Your task to perform on an android device: Go to privacy settings Image 0: 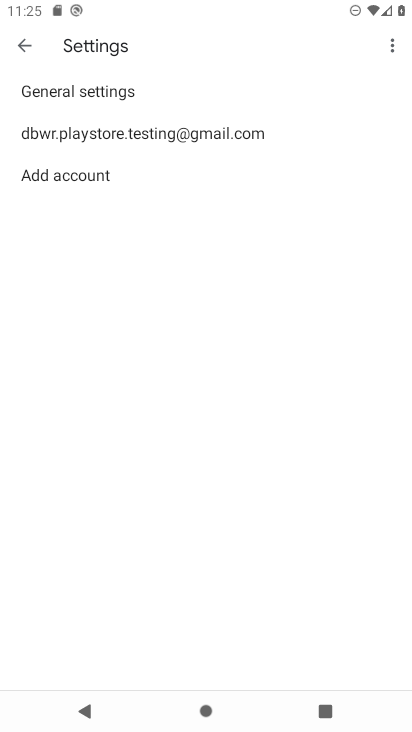
Step 0: click (137, 101)
Your task to perform on an android device: Go to privacy settings Image 1: 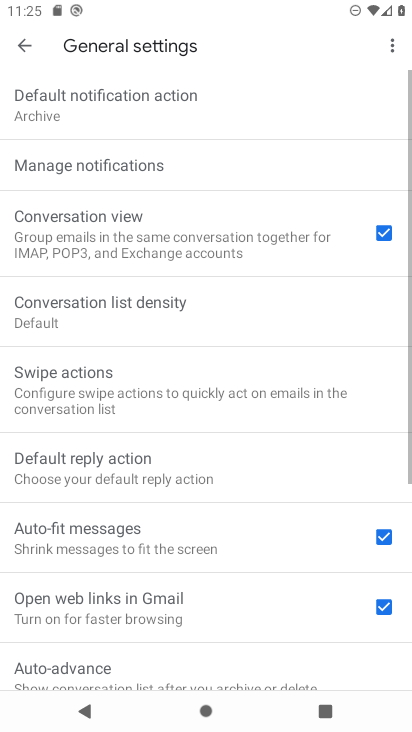
Step 1: press home button
Your task to perform on an android device: Go to privacy settings Image 2: 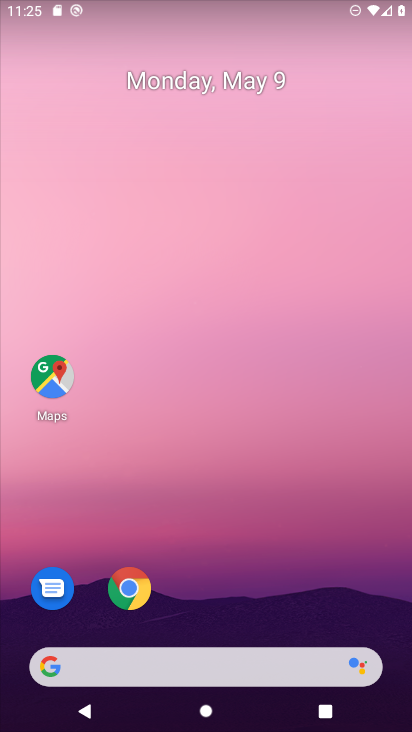
Step 2: drag from (205, 606) to (198, 182)
Your task to perform on an android device: Go to privacy settings Image 3: 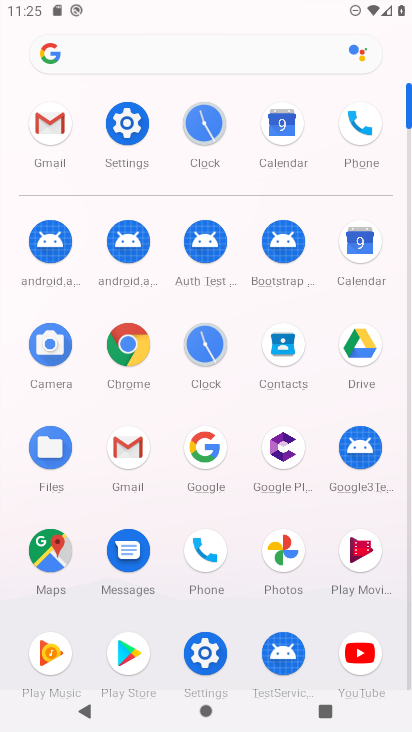
Step 3: click (128, 133)
Your task to perform on an android device: Go to privacy settings Image 4: 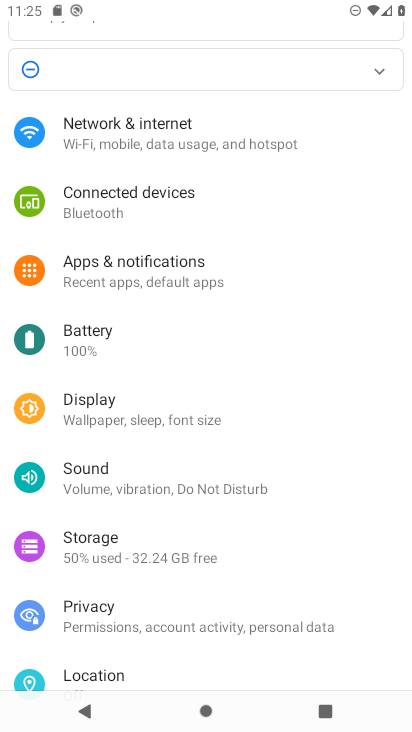
Step 4: click (145, 613)
Your task to perform on an android device: Go to privacy settings Image 5: 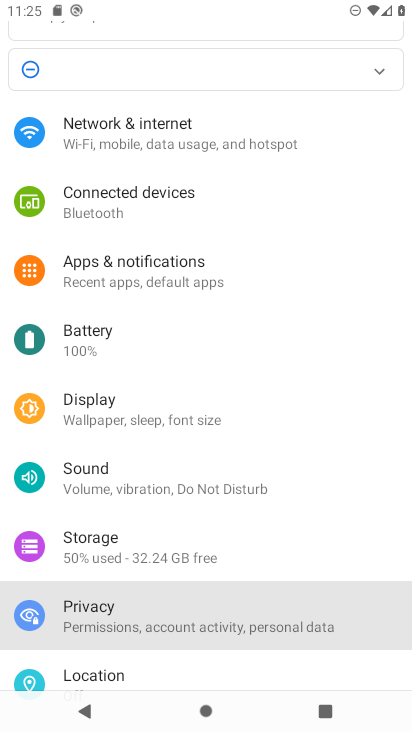
Step 5: task complete